Your task to perform on an android device: Show me popular videos on Youtube Image 0: 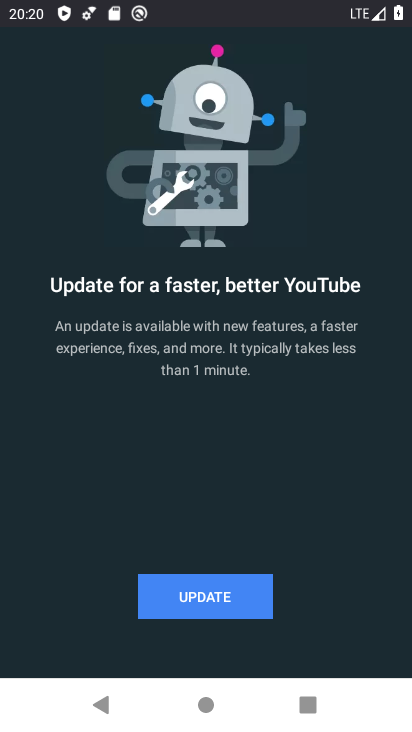
Step 0: press home button
Your task to perform on an android device: Show me popular videos on Youtube Image 1: 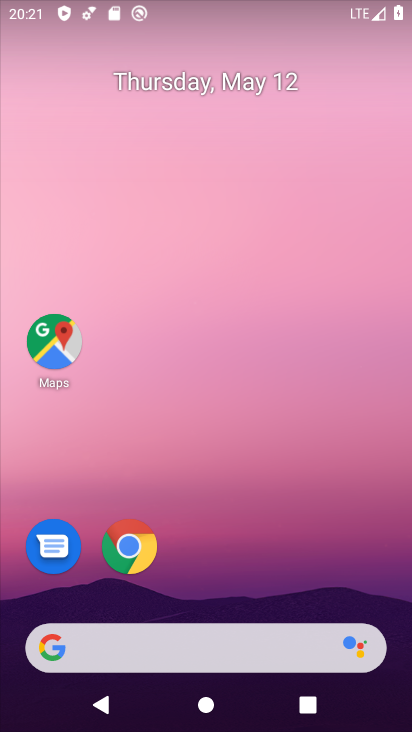
Step 1: drag from (219, 611) to (323, 52)
Your task to perform on an android device: Show me popular videos on Youtube Image 2: 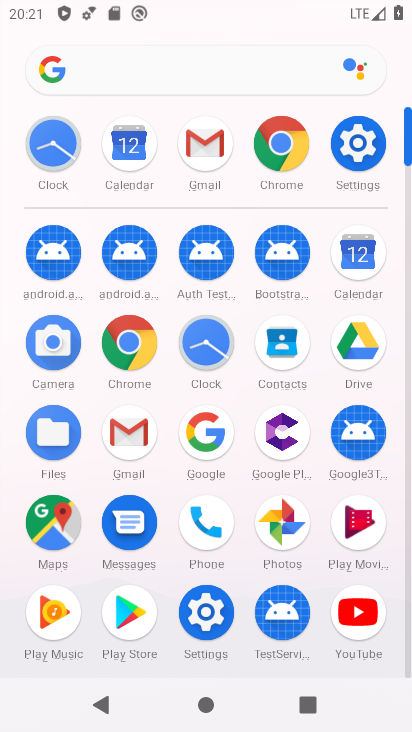
Step 2: click (351, 628)
Your task to perform on an android device: Show me popular videos on Youtube Image 3: 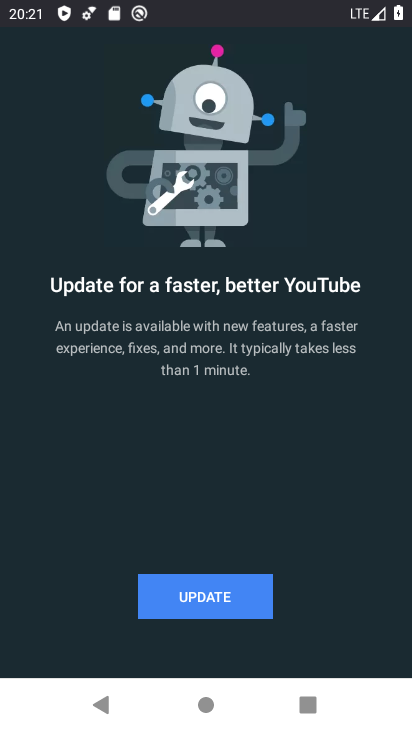
Step 3: click (208, 608)
Your task to perform on an android device: Show me popular videos on Youtube Image 4: 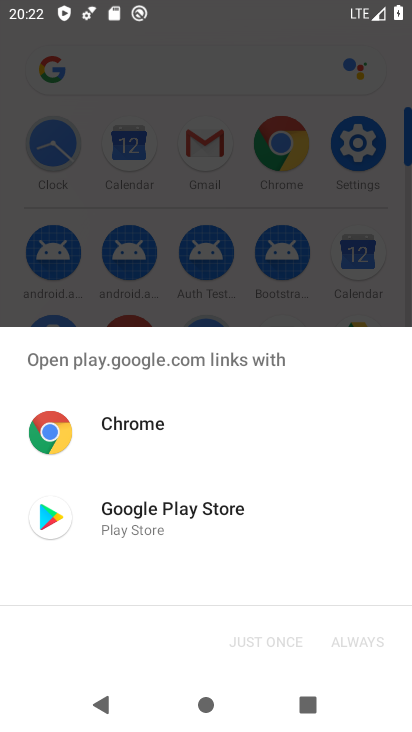
Step 4: click (181, 528)
Your task to perform on an android device: Show me popular videos on Youtube Image 5: 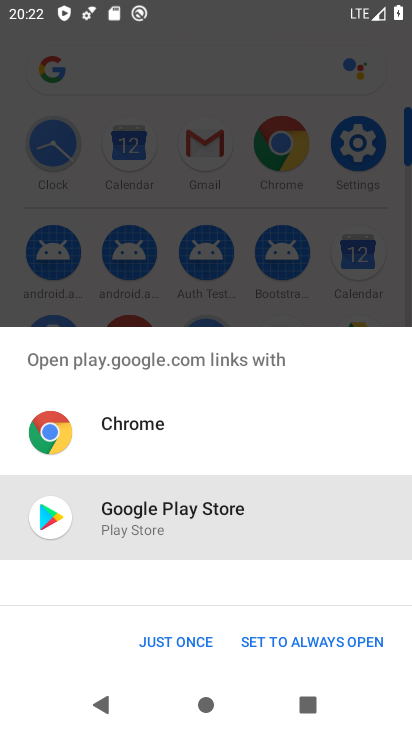
Step 5: click (160, 650)
Your task to perform on an android device: Show me popular videos on Youtube Image 6: 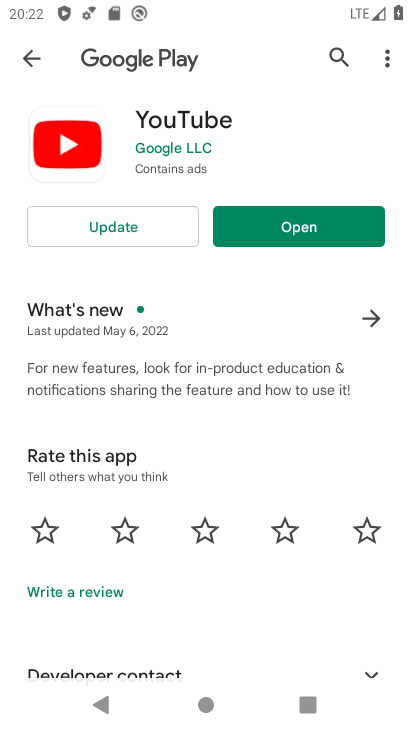
Step 6: click (151, 233)
Your task to perform on an android device: Show me popular videos on Youtube Image 7: 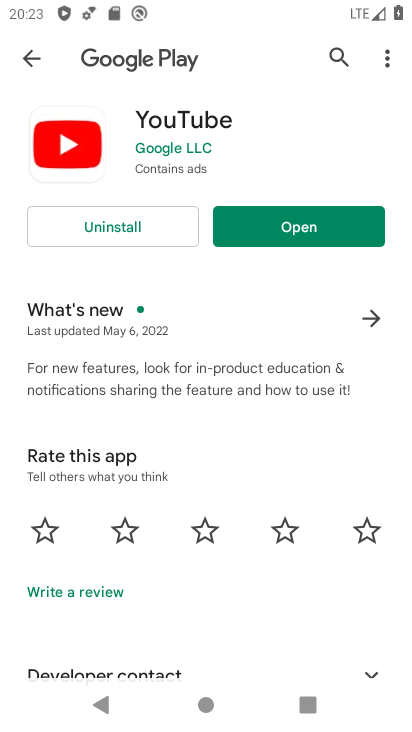
Step 7: click (256, 220)
Your task to perform on an android device: Show me popular videos on Youtube Image 8: 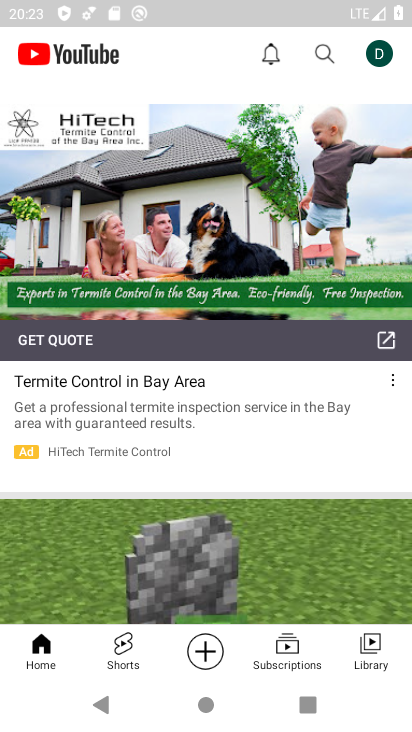
Step 8: drag from (159, 242) to (159, 659)
Your task to perform on an android device: Show me popular videos on Youtube Image 9: 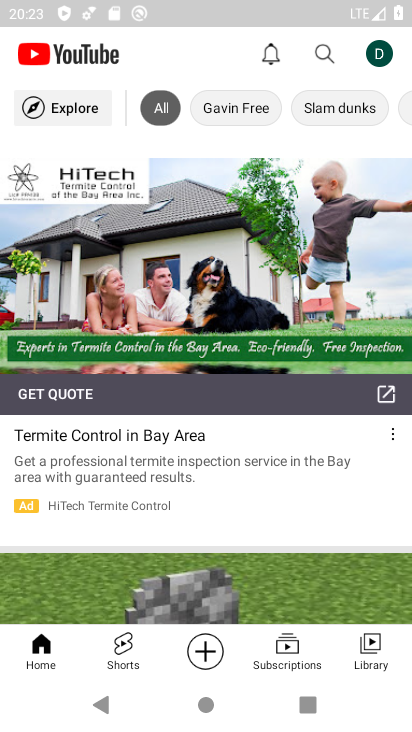
Step 9: click (66, 101)
Your task to perform on an android device: Show me popular videos on Youtube Image 10: 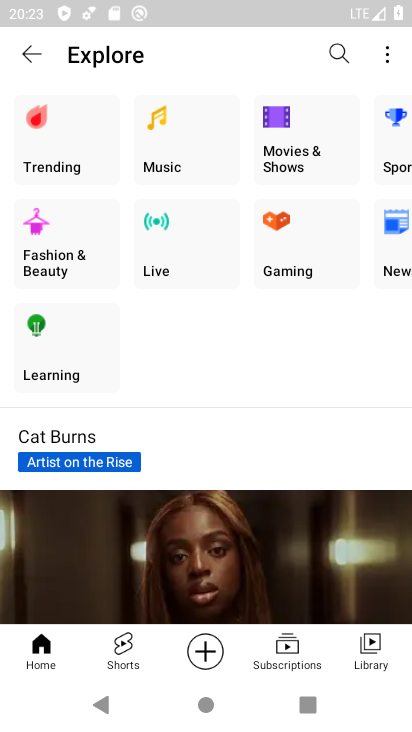
Step 10: click (61, 150)
Your task to perform on an android device: Show me popular videos on Youtube Image 11: 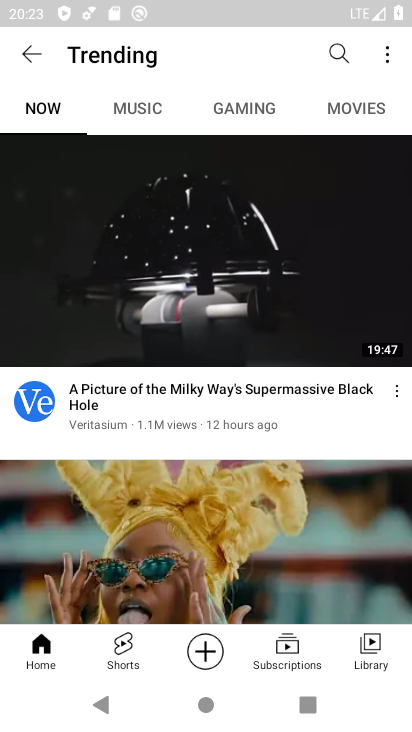
Step 11: task complete